Your task to perform on an android device: Open ESPN.com Image 0: 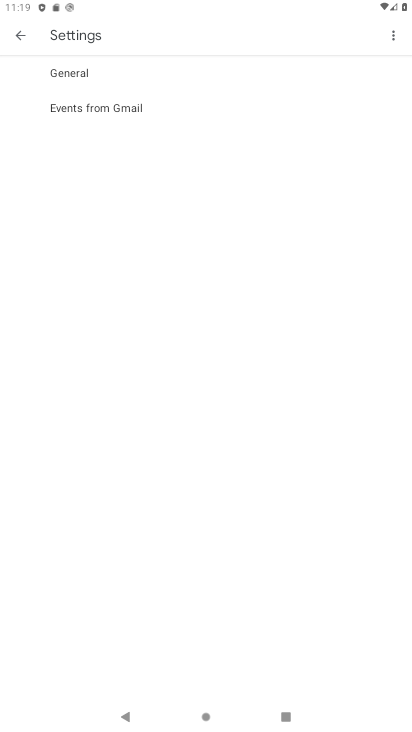
Step 0: press home button
Your task to perform on an android device: Open ESPN.com Image 1: 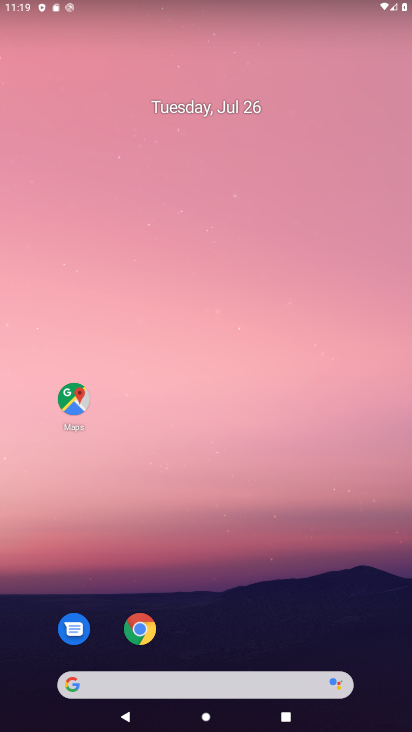
Step 1: click (138, 625)
Your task to perform on an android device: Open ESPN.com Image 2: 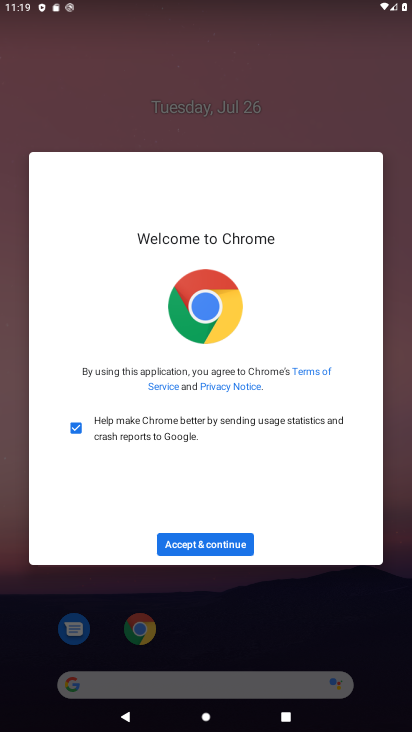
Step 2: click (209, 543)
Your task to perform on an android device: Open ESPN.com Image 3: 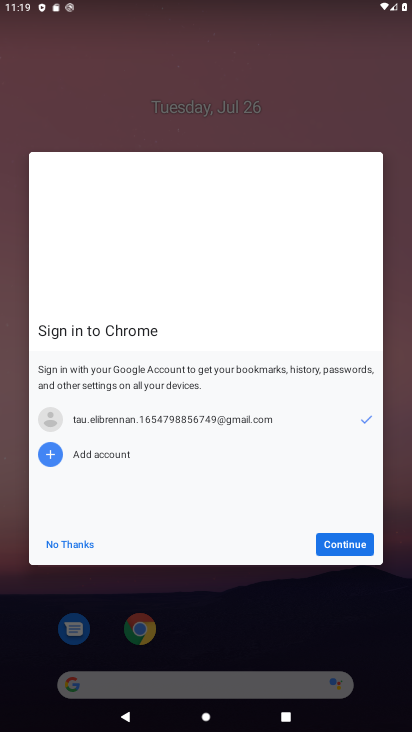
Step 3: click (350, 536)
Your task to perform on an android device: Open ESPN.com Image 4: 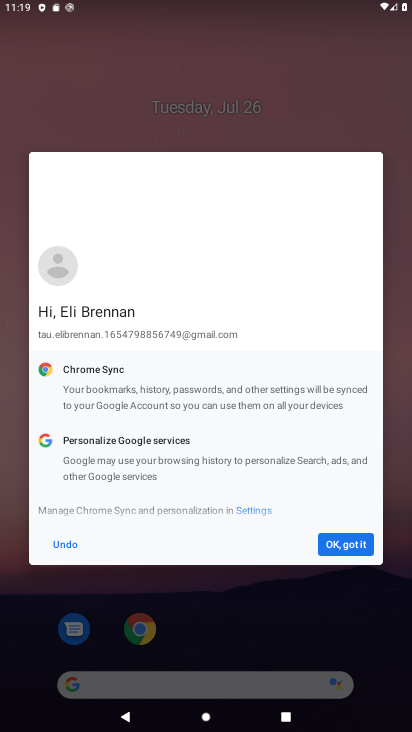
Step 4: click (347, 547)
Your task to perform on an android device: Open ESPN.com Image 5: 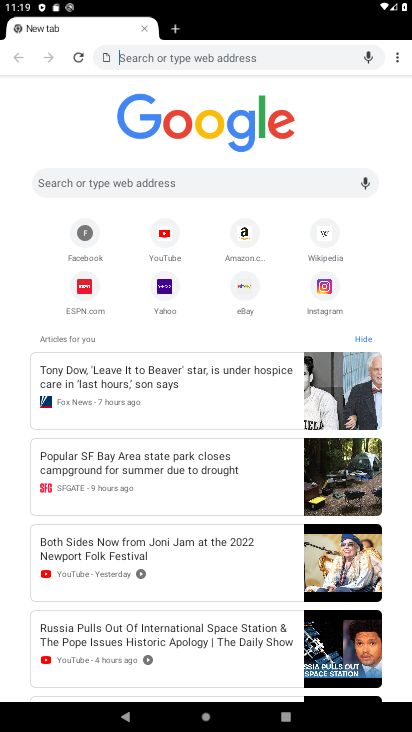
Step 5: click (81, 285)
Your task to perform on an android device: Open ESPN.com Image 6: 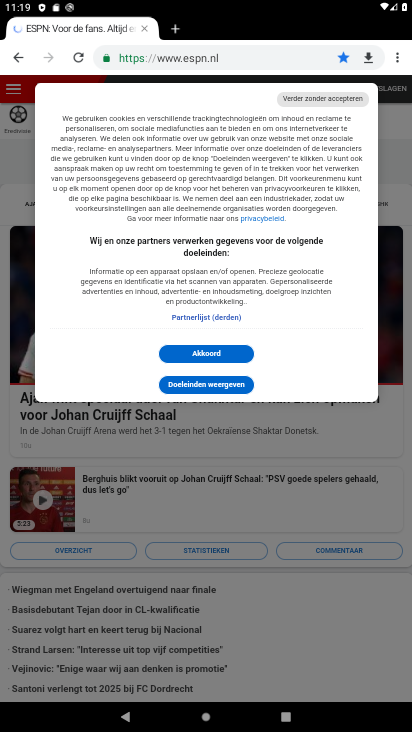
Step 6: task complete